Your task to perform on an android device: change timer sound Image 0: 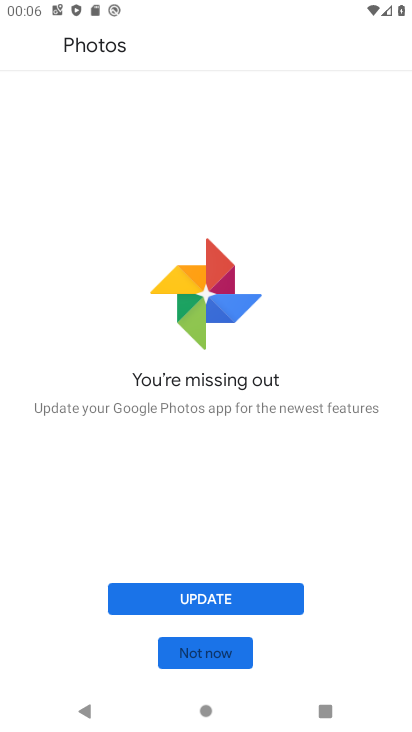
Step 0: press home button
Your task to perform on an android device: change timer sound Image 1: 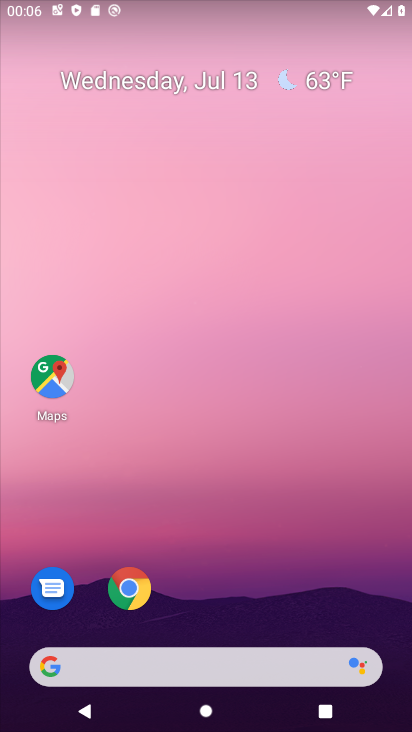
Step 1: drag from (47, 708) to (218, 0)
Your task to perform on an android device: change timer sound Image 2: 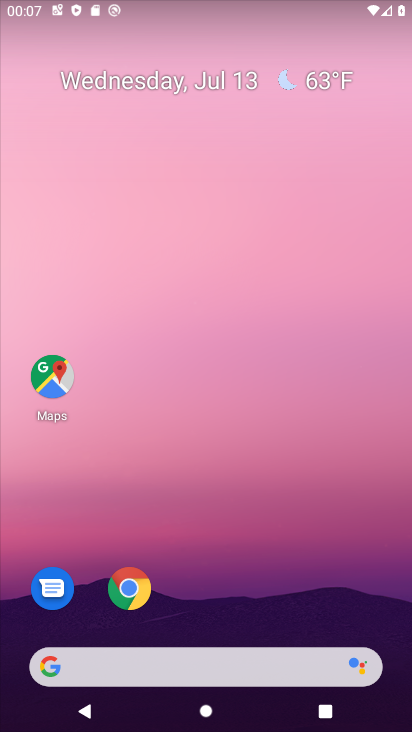
Step 2: drag from (57, 709) to (241, 109)
Your task to perform on an android device: change timer sound Image 3: 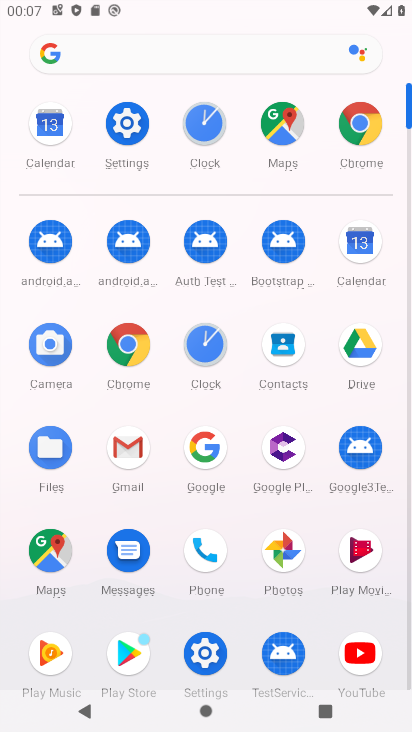
Step 3: click (199, 340)
Your task to perform on an android device: change timer sound Image 4: 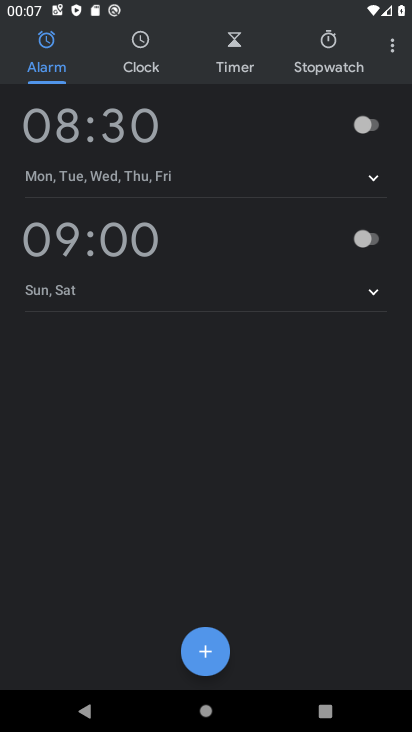
Step 4: click (219, 56)
Your task to perform on an android device: change timer sound Image 5: 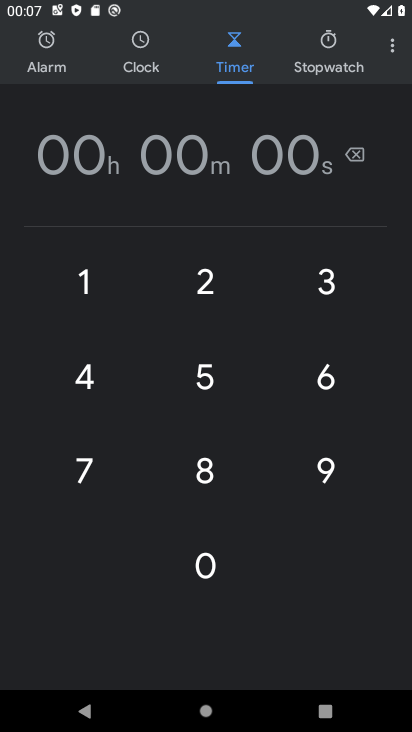
Step 5: click (397, 41)
Your task to perform on an android device: change timer sound Image 6: 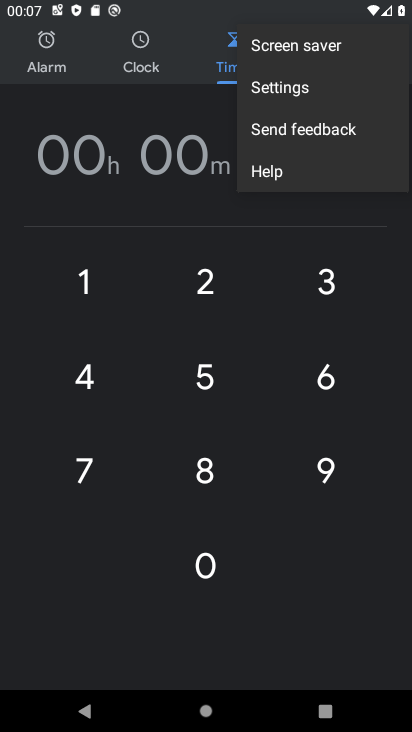
Step 6: click (297, 88)
Your task to perform on an android device: change timer sound Image 7: 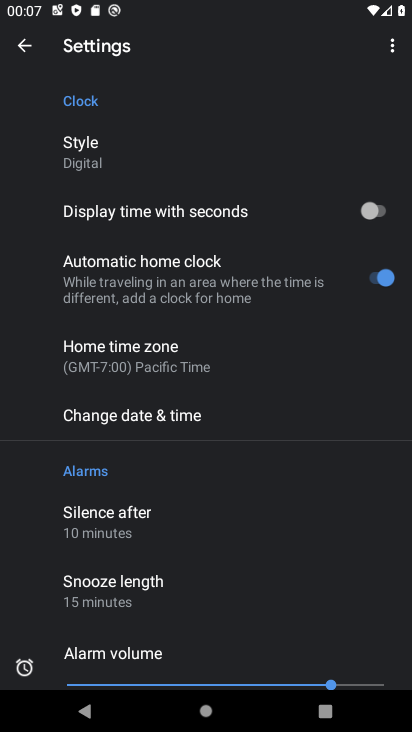
Step 7: drag from (238, 565) to (263, 430)
Your task to perform on an android device: change timer sound Image 8: 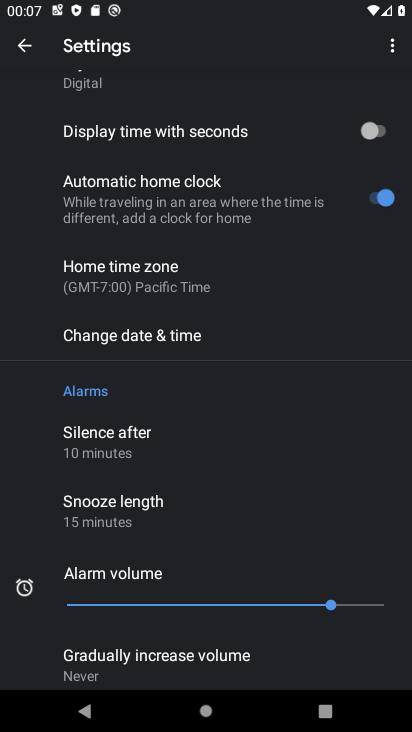
Step 8: drag from (238, 673) to (222, 470)
Your task to perform on an android device: change timer sound Image 9: 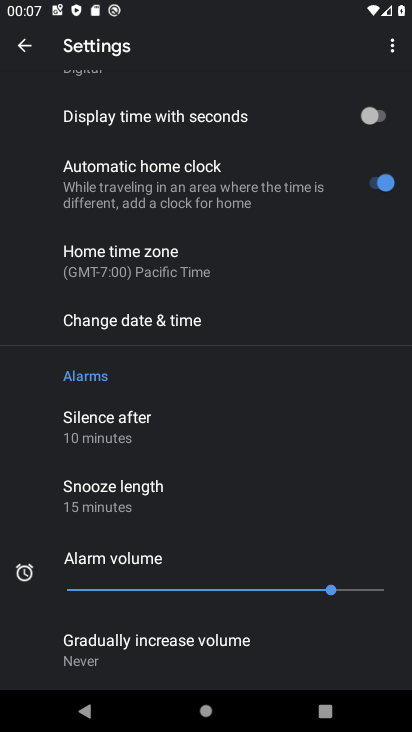
Step 9: drag from (235, 640) to (231, 371)
Your task to perform on an android device: change timer sound Image 10: 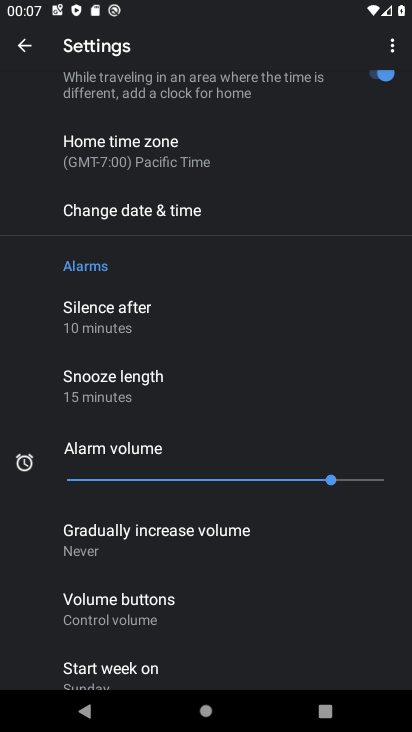
Step 10: drag from (200, 638) to (211, 444)
Your task to perform on an android device: change timer sound Image 11: 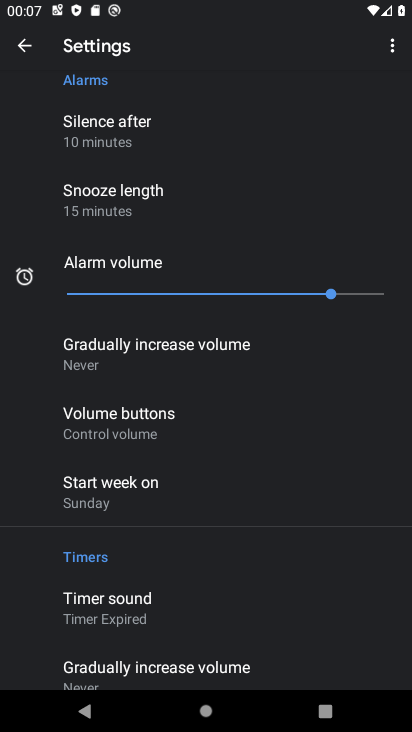
Step 11: drag from (215, 611) to (224, 464)
Your task to perform on an android device: change timer sound Image 12: 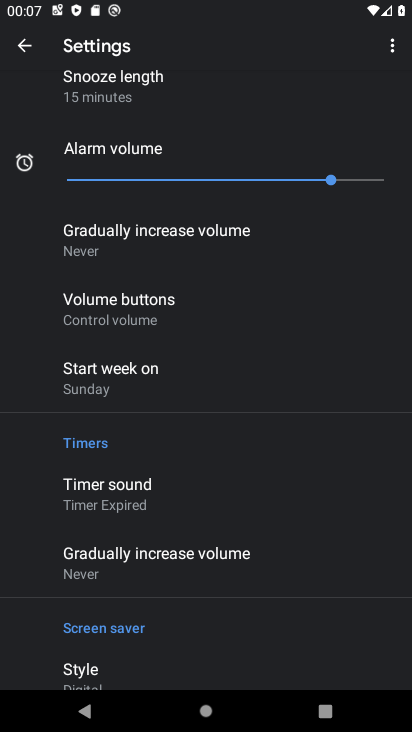
Step 12: click (128, 497)
Your task to perform on an android device: change timer sound Image 13: 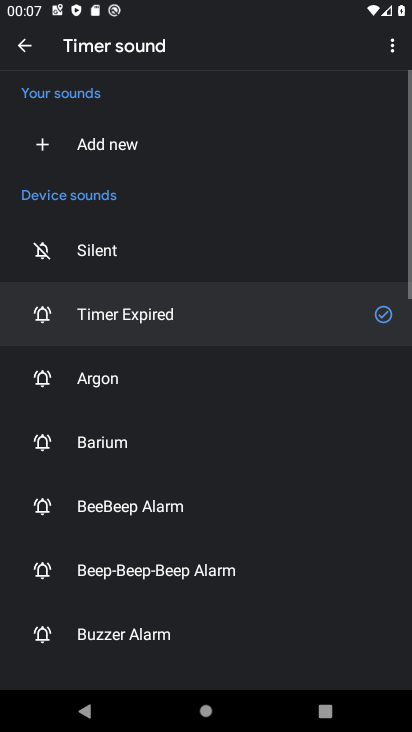
Step 13: click (99, 381)
Your task to perform on an android device: change timer sound Image 14: 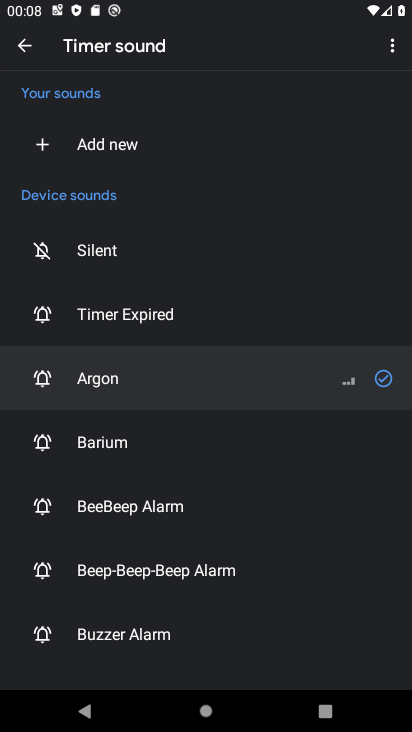
Step 14: task complete